Your task to perform on an android device: Open Chrome and go to settings Image 0: 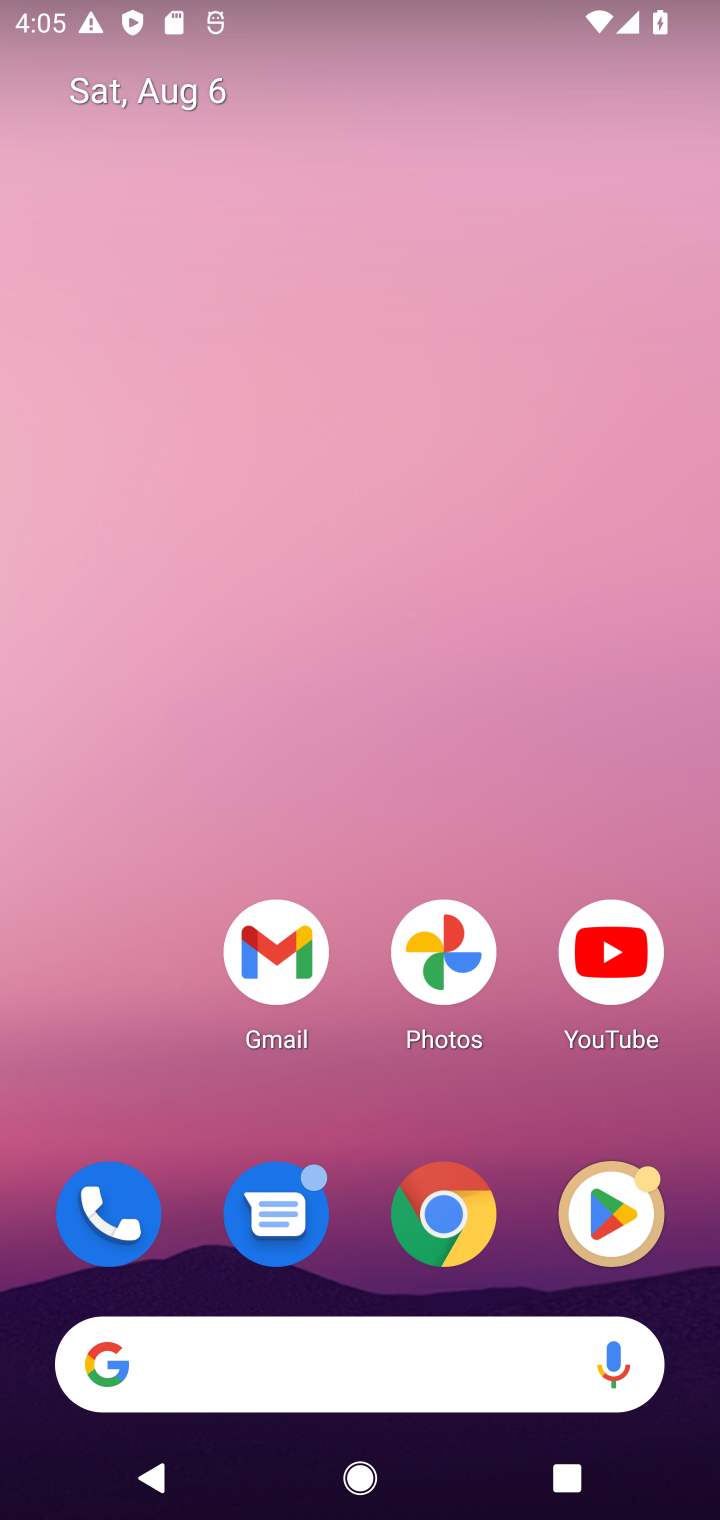
Step 0: click (443, 1218)
Your task to perform on an android device: Open Chrome and go to settings Image 1: 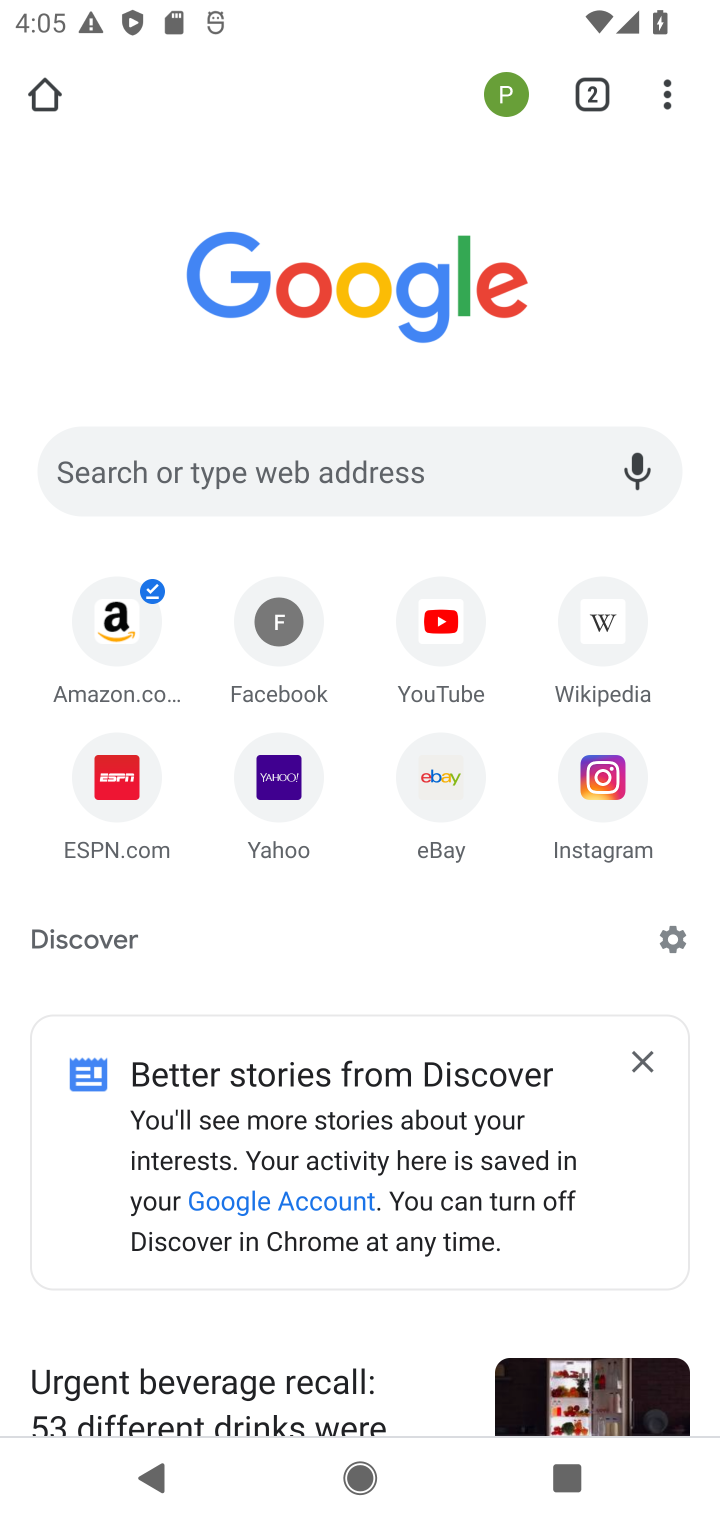
Step 1: click (667, 112)
Your task to perform on an android device: Open Chrome and go to settings Image 2: 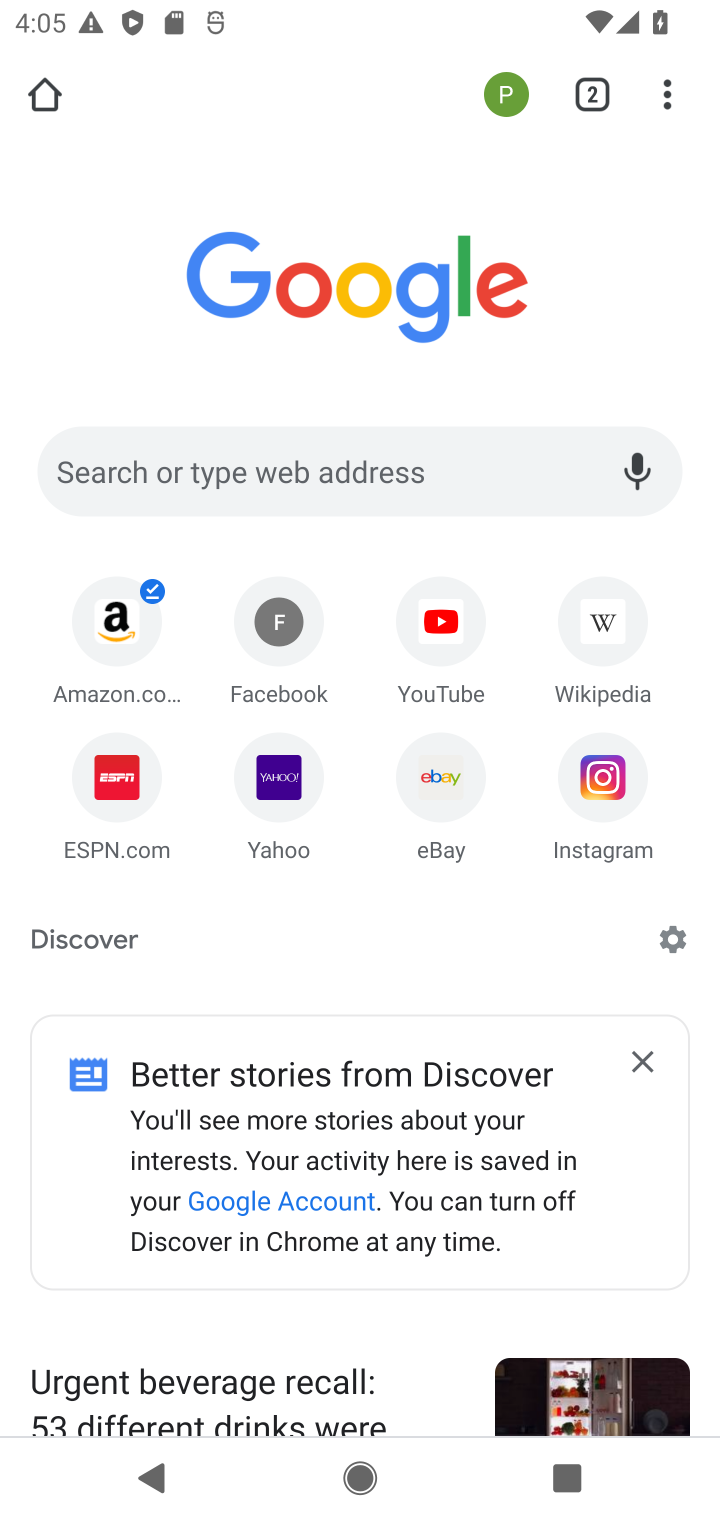
Step 2: click (662, 80)
Your task to perform on an android device: Open Chrome and go to settings Image 3: 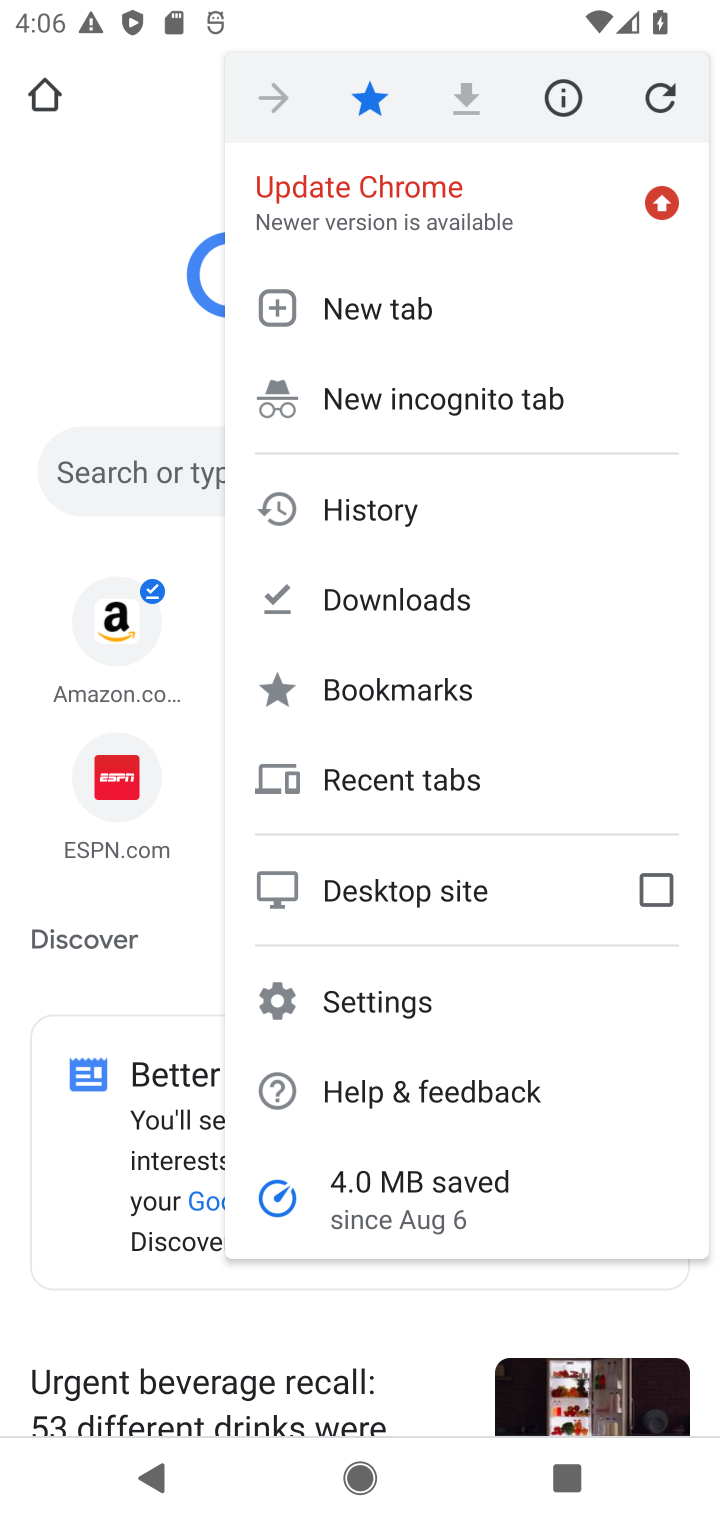
Step 3: click (392, 991)
Your task to perform on an android device: Open Chrome and go to settings Image 4: 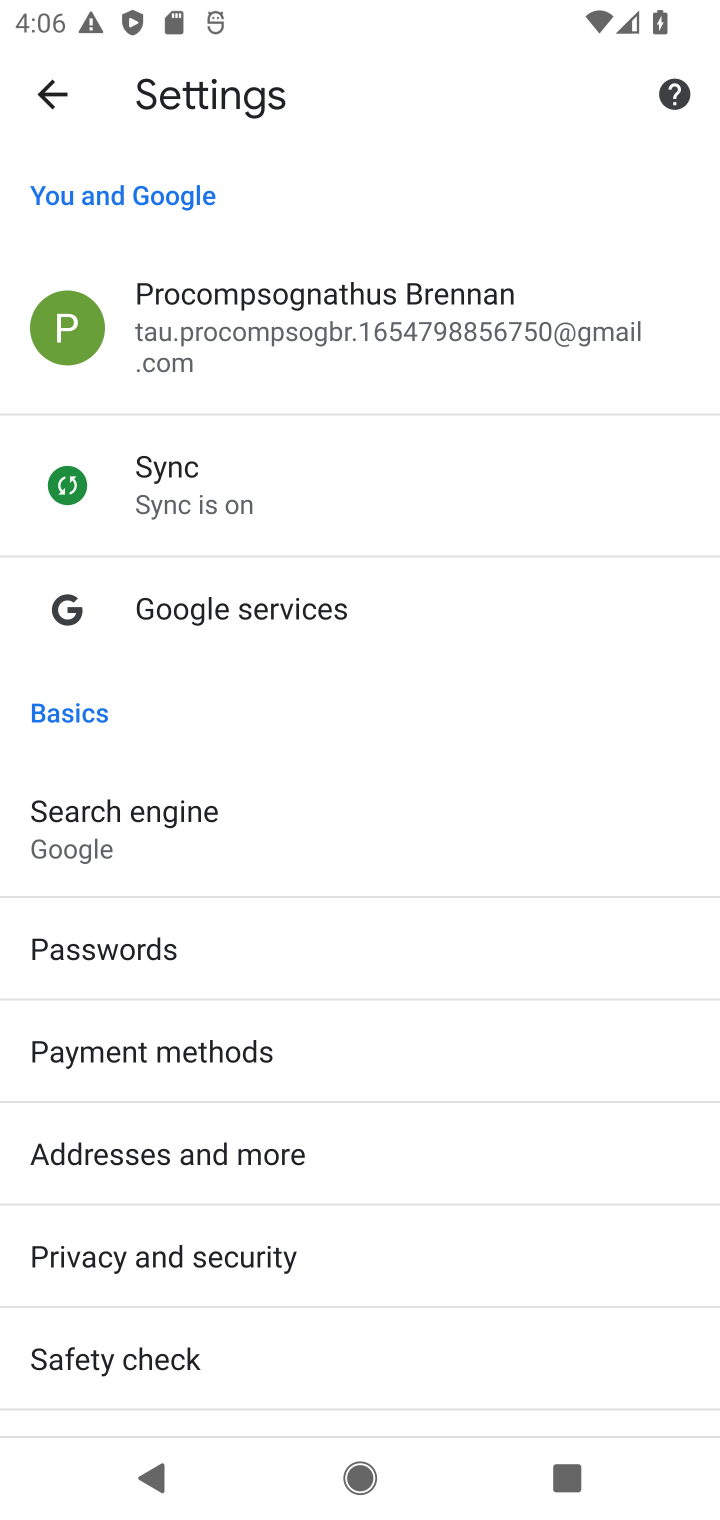
Step 4: task complete